Your task to perform on an android device: Open accessibility settings Image 0: 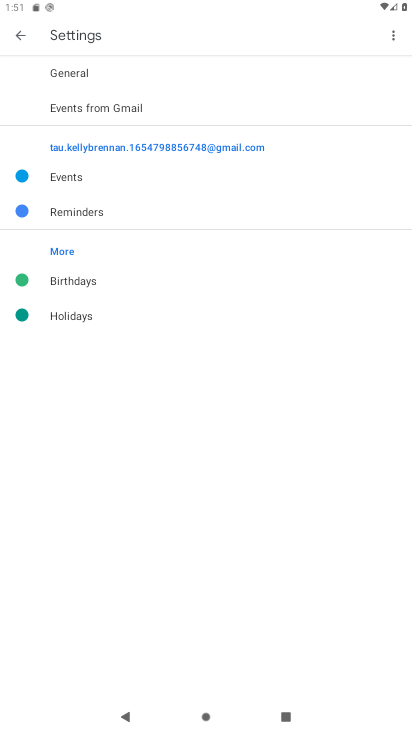
Step 0: press home button
Your task to perform on an android device: Open accessibility settings Image 1: 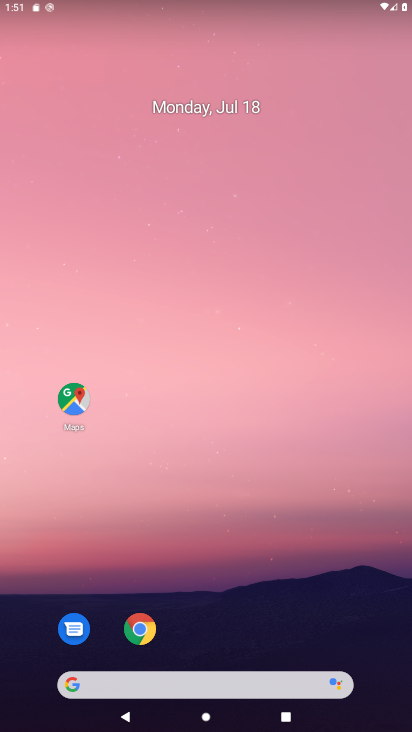
Step 1: drag from (206, 571) to (188, 329)
Your task to perform on an android device: Open accessibility settings Image 2: 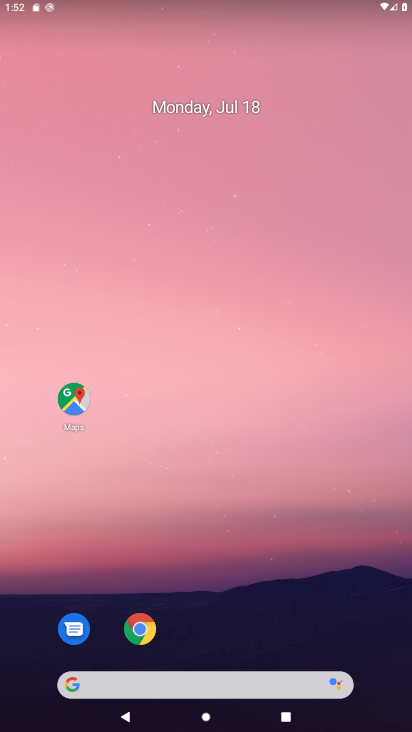
Step 2: drag from (208, 584) to (198, 38)
Your task to perform on an android device: Open accessibility settings Image 3: 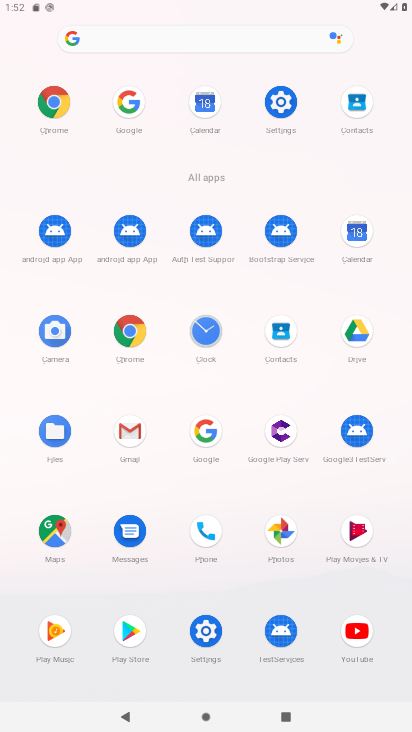
Step 3: click (286, 101)
Your task to perform on an android device: Open accessibility settings Image 4: 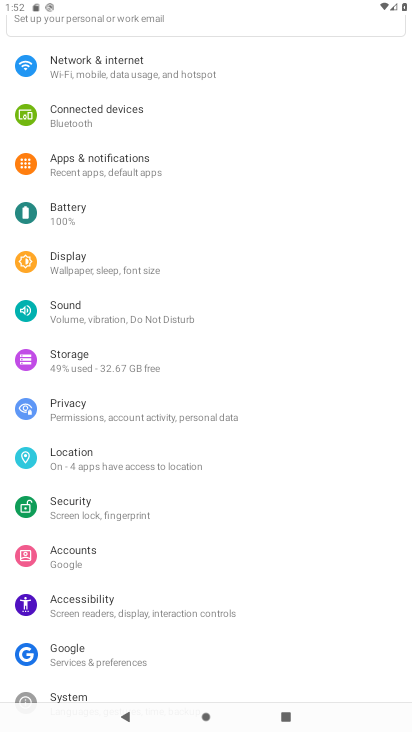
Step 4: click (98, 606)
Your task to perform on an android device: Open accessibility settings Image 5: 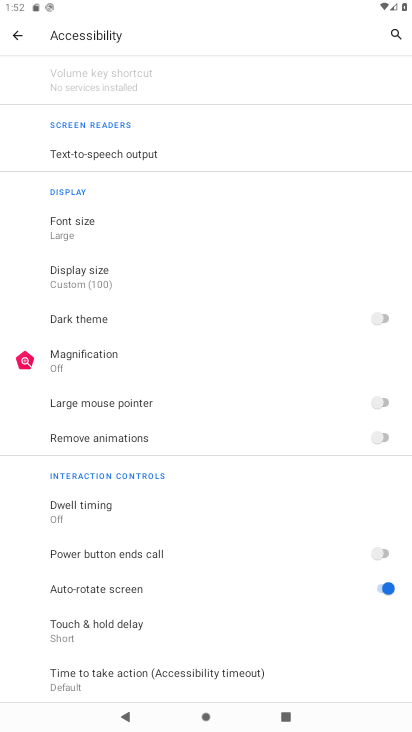
Step 5: task complete